Your task to perform on an android device: Search for the new Air Jordan 13 on Nike.com Image 0: 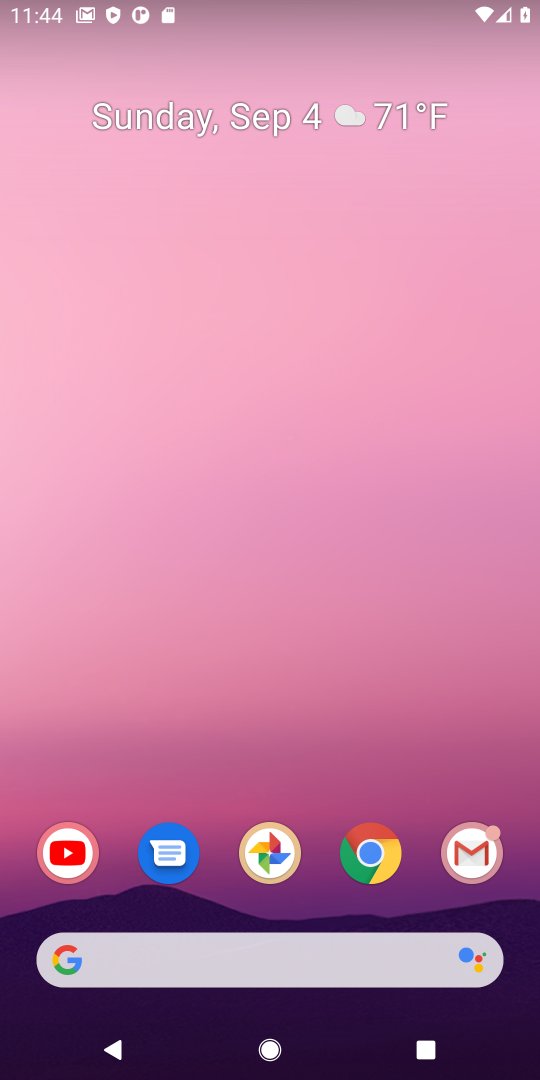
Step 0: click (401, 1077)
Your task to perform on an android device: Search for the new Air Jordan 13 on Nike.com Image 1: 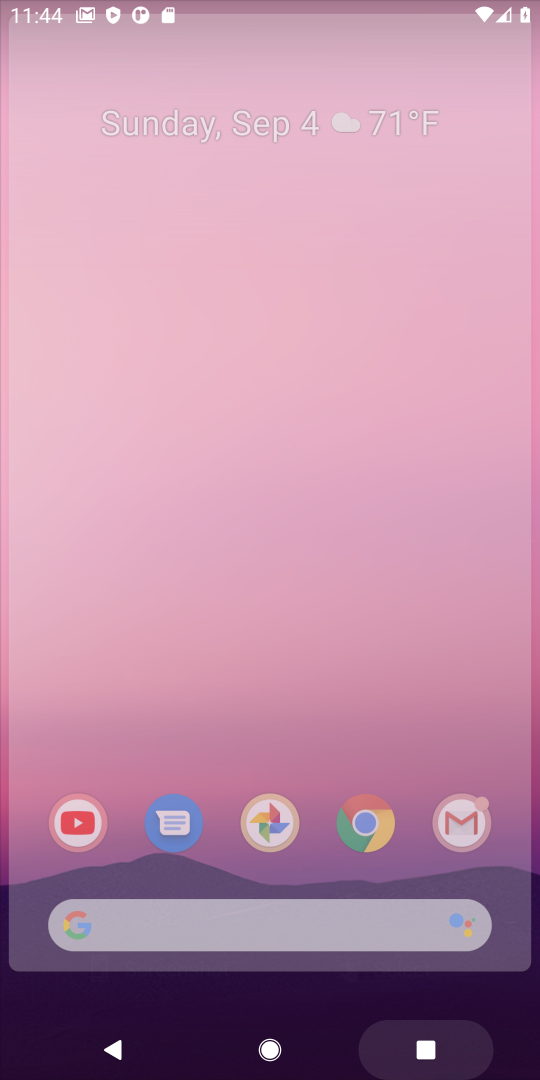
Step 1: click (380, 856)
Your task to perform on an android device: Search for the new Air Jordan 13 on Nike.com Image 2: 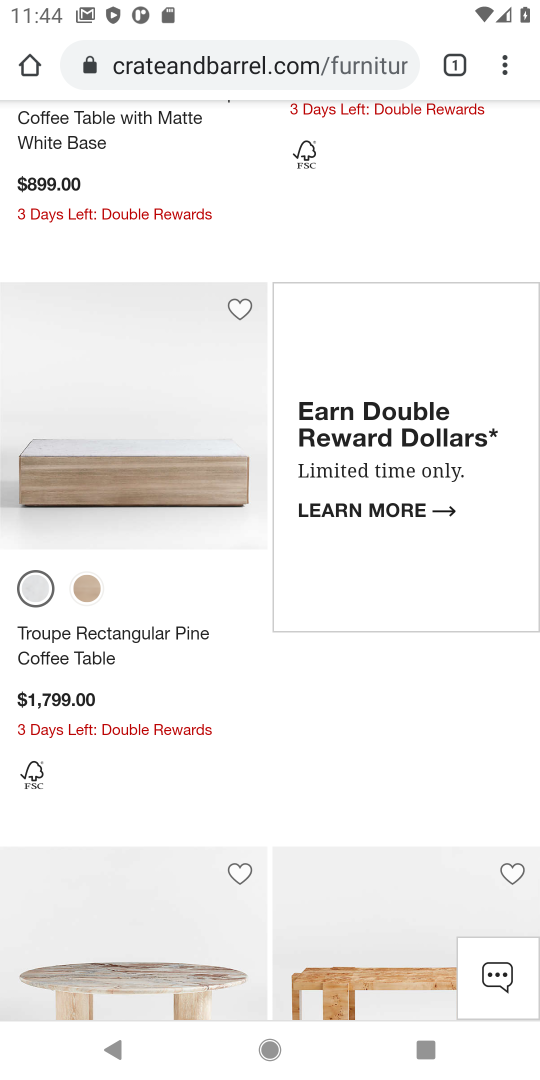
Step 2: press home button
Your task to perform on an android device: Search for the new Air Jordan 13 on Nike.com Image 3: 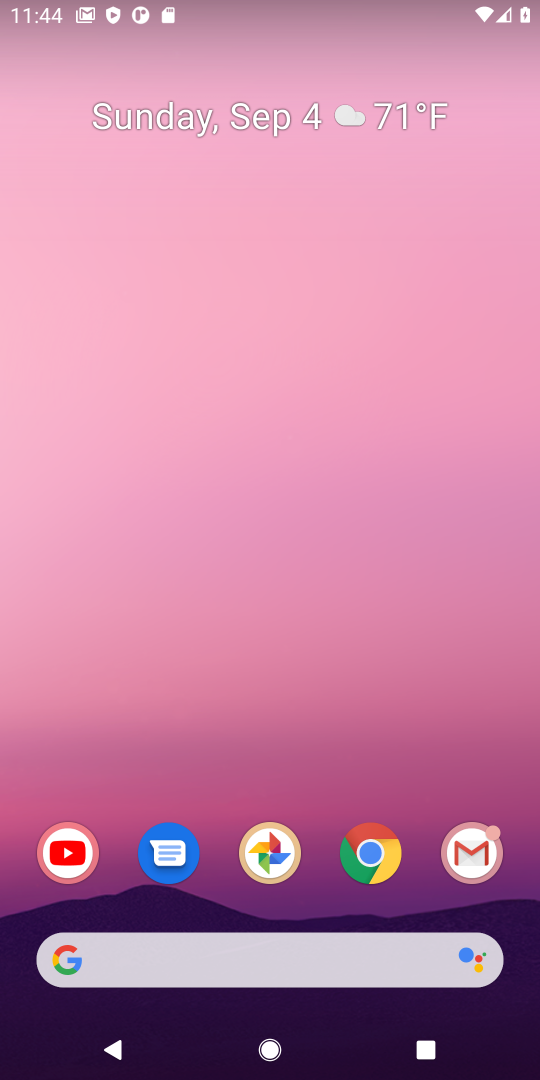
Step 3: click (372, 835)
Your task to perform on an android device: Search for the new Air Jordan 13 on Nike.com Image 4: 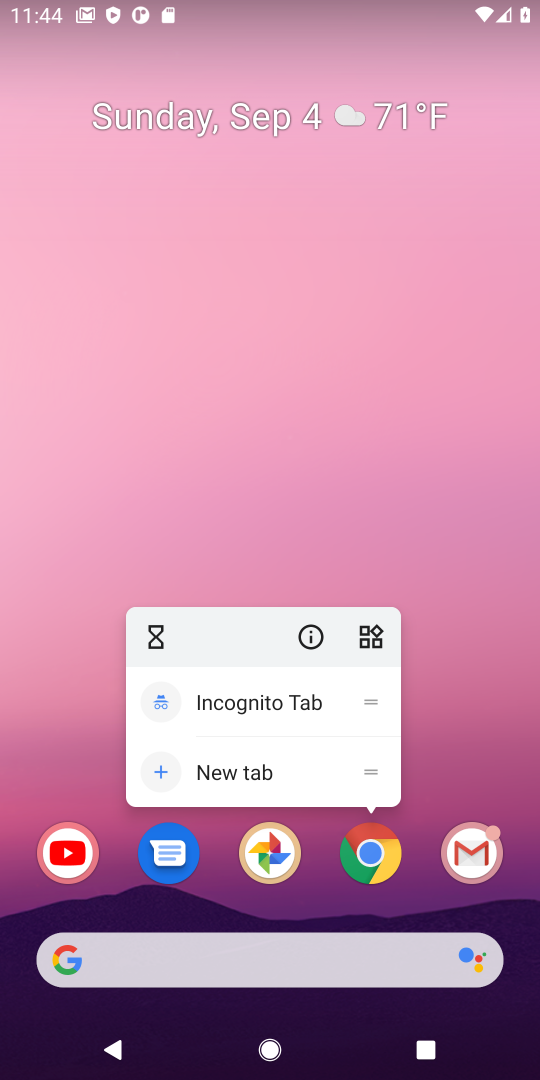
Step 4: click (373, 851)
Your task to perform on an android device: Search for the new Air Jordan 13 on Nike.com Image 5: 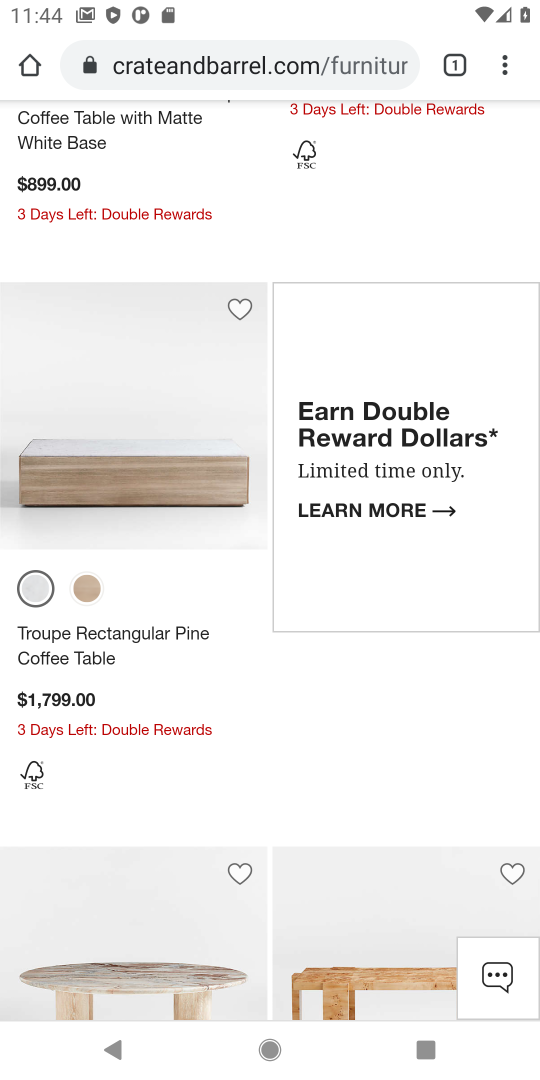
Step 5: click (289, 61)
Your task to perform on an android device: Search for the new Air Jordan 13 on Nike.com Image 6: 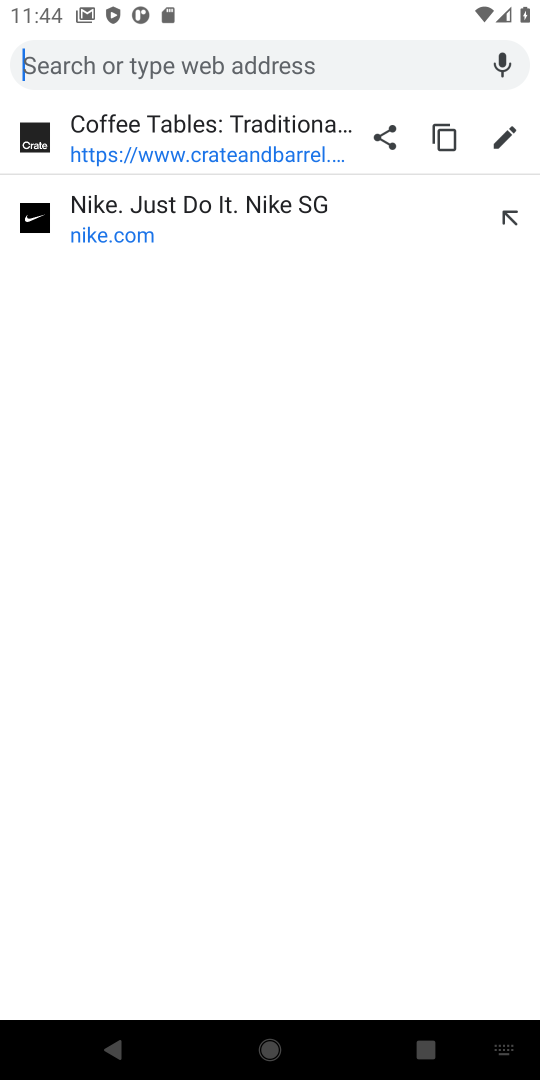
Step 6: type "Nike.com"
Your task to perform on an android device: Search for the new Air Jordan 13 on Nike.com Image 7: 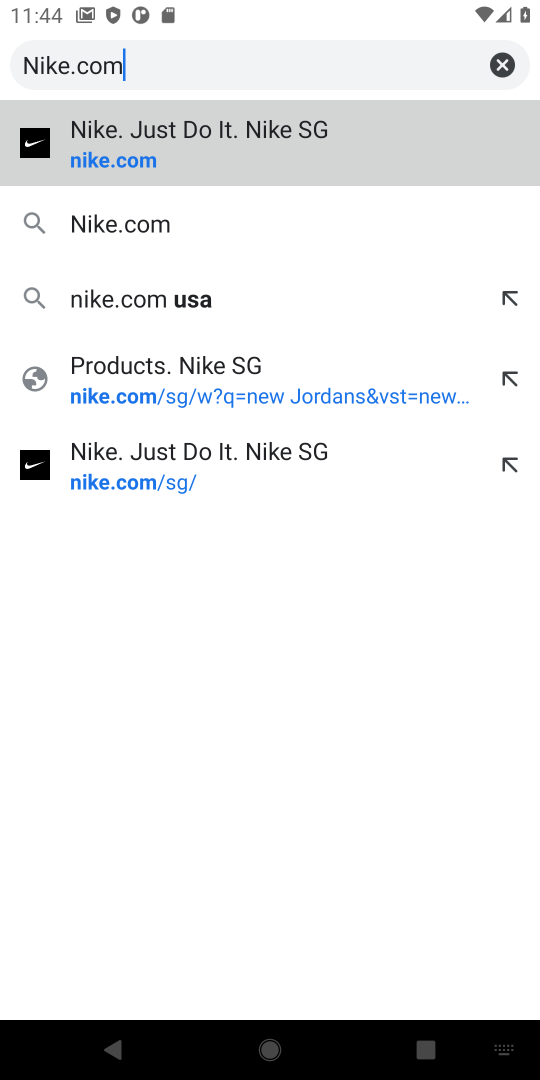
Step 7: press enter
Your task to perform on an android device: Search for the new Air Jordan 13 on Nike.com Image 8: 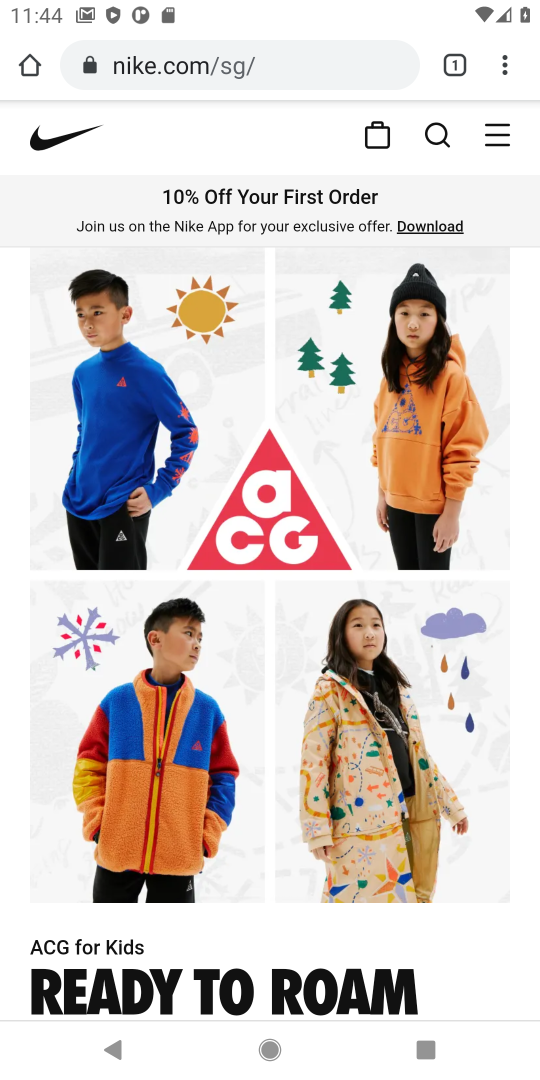
Step 8: click (428, 123)
Your task to perform on an android device: Search for the new Air Jordan 13 on Nike.com Image 9: 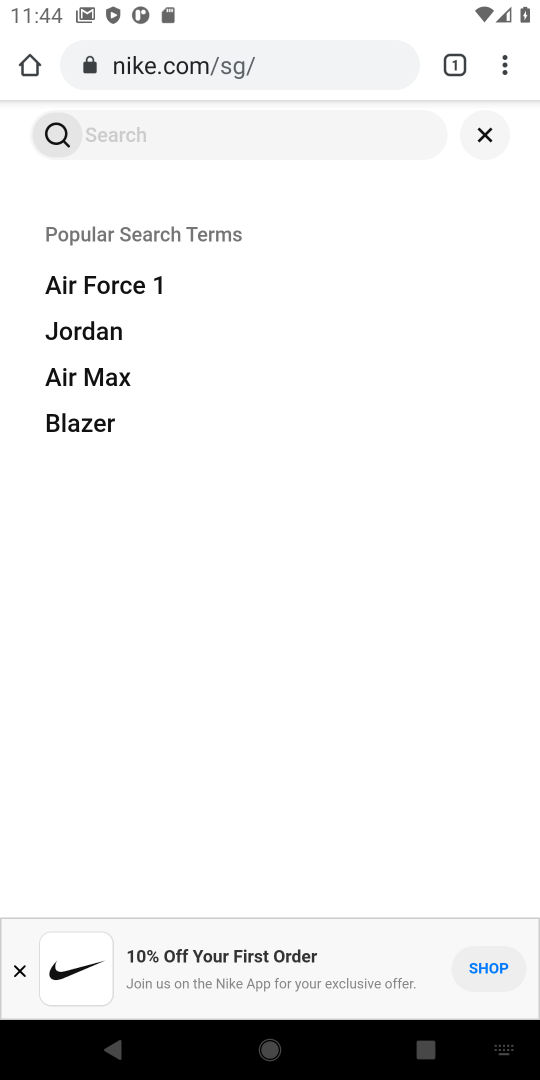
Step 9: click (147, 121)
Your task to perform on an android device: Search for the new Air Jordan 13 on Nike.com Image 10: 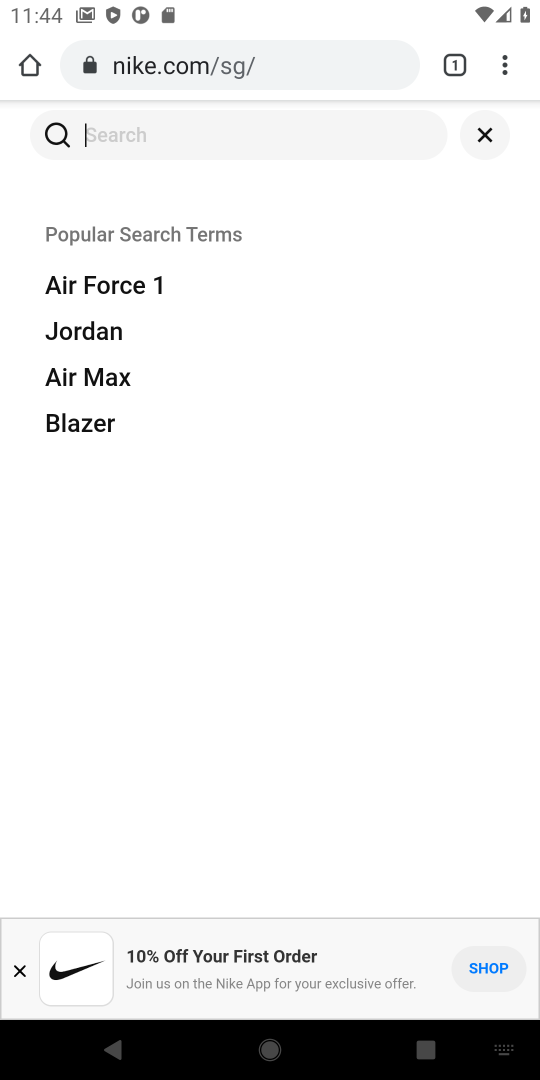
Step 10: type " new Air Jordan 13"
Your task to perform on an android device: Search for the new Air Jordan 13 on Nike.com Image 11: 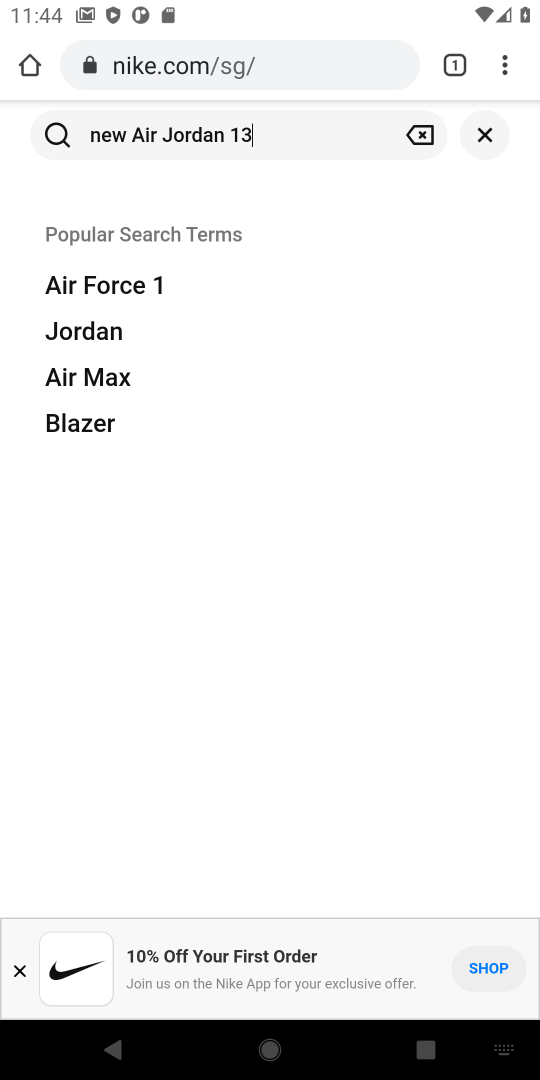
Step 11: press enter
Your task to perform on an android device: Search for the new Air Jordan 13 on Nike.com Image 12: 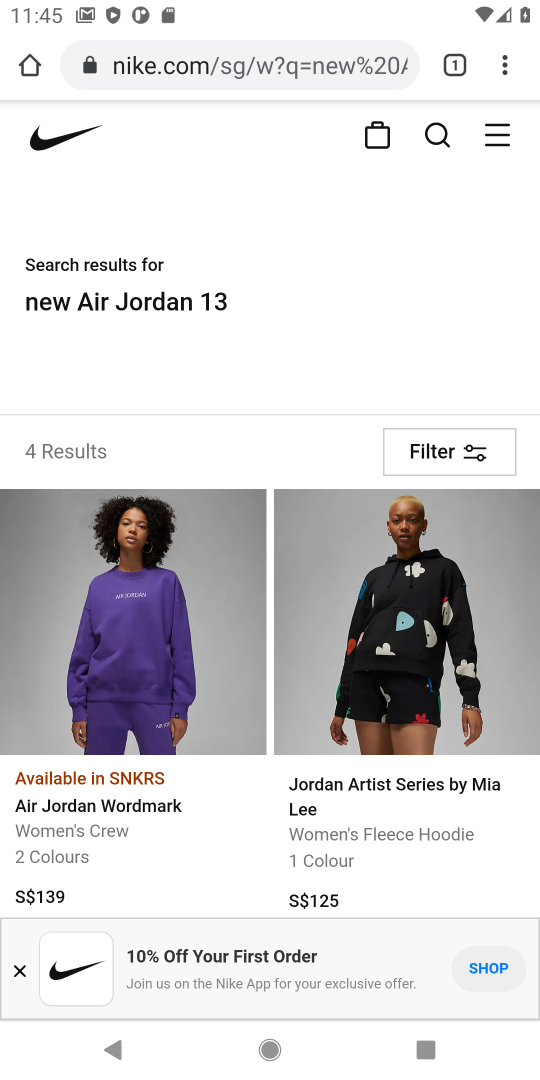
Step 12: task complete